Your task to perform on an android device: Is it going to rain this weekend? Image 0: 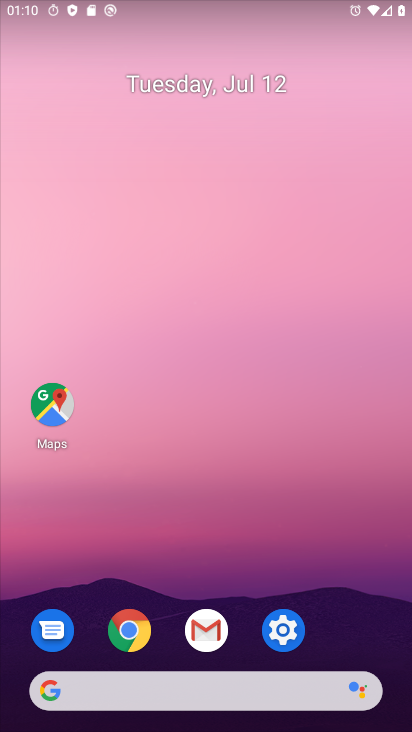
Step 0: click (211, 678)
Your task to perform on an android device: Is it going to rain this weekend? Image 1: 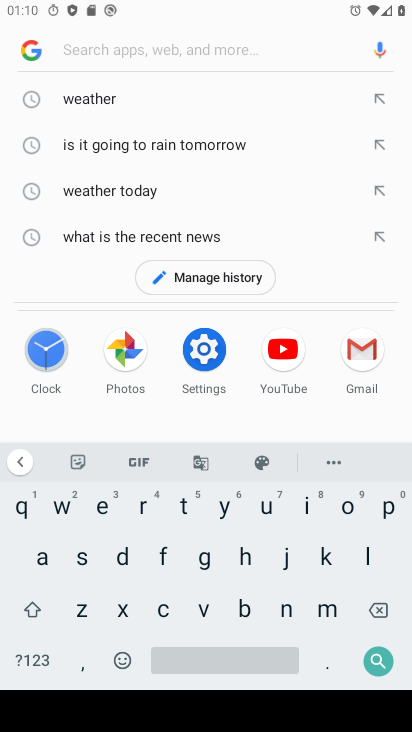
Step 1: click (137, 502)
Your task to perform on an android device: Is it going to rain this weekend? Image 2: 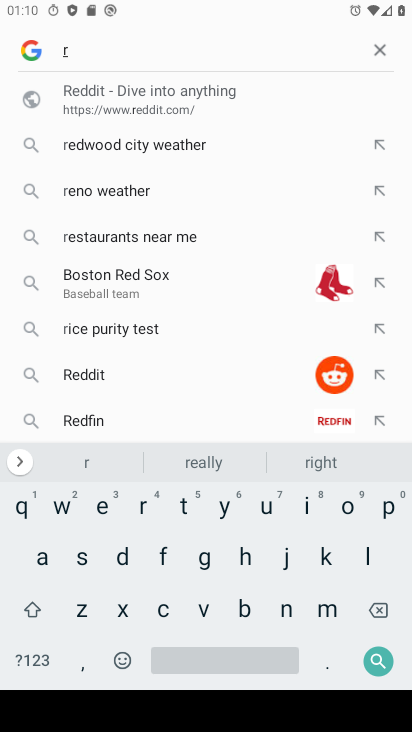
Step 2: click (50, 552)
Your task to perform on an android device: Is it going to rain this weekend? Image 3: 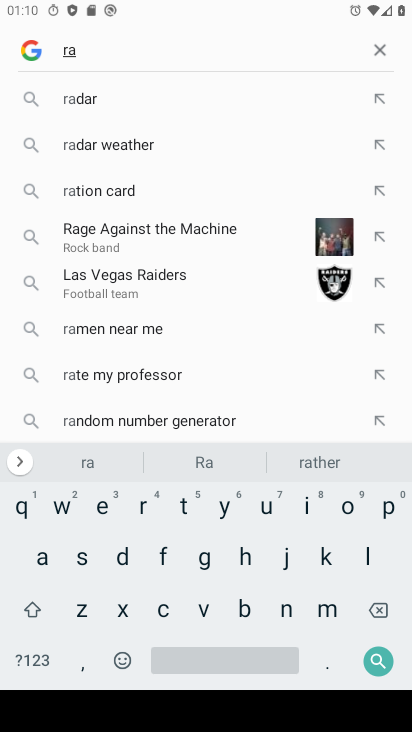
Step 3: click (307, 506)
Your task to perform on an android device: Is it going to rain this weekend? Image 4: 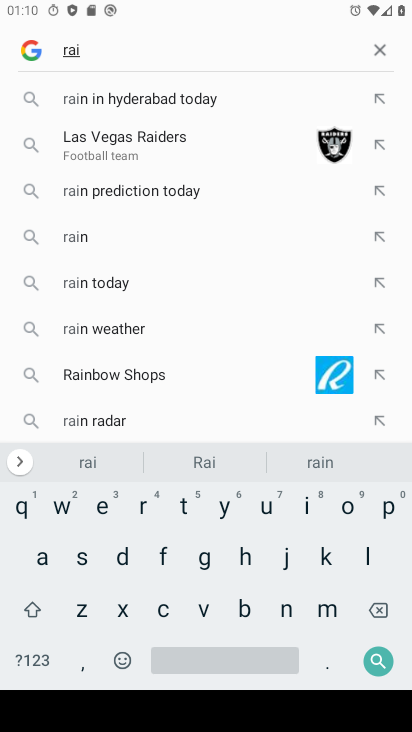
Step 4: click (286, 608)
Your task to perform on an android device: Is it going to rain this weekend? Image 5: 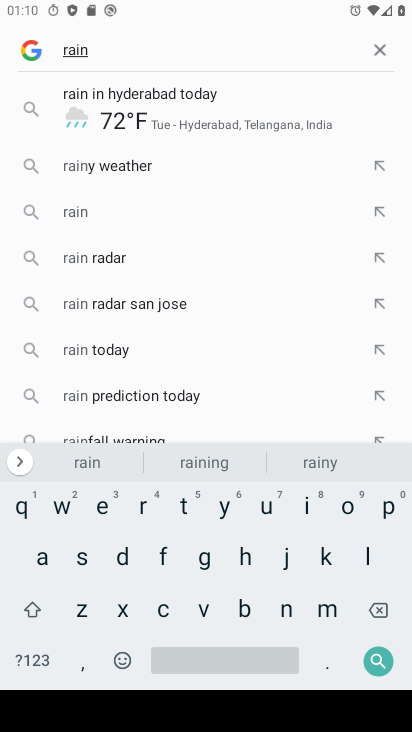
Step 5: click (377, 661)
Your task to perform on an android device: Is it going to rain this weekend? Image 6: 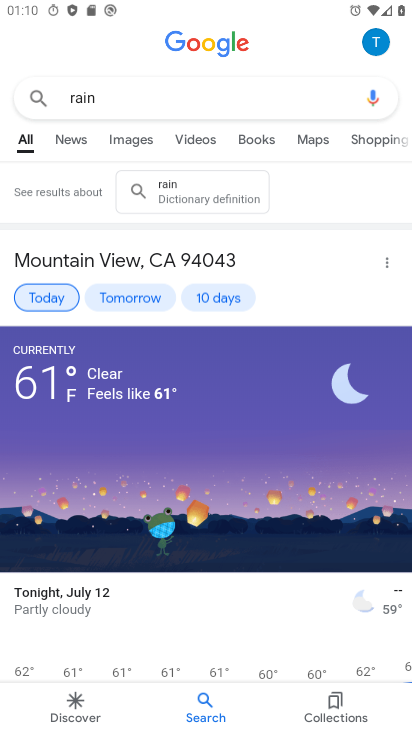
Step 6: click (209, 294)
Your task to perform on an android device: Is it going to rain this weekend? Image 7: 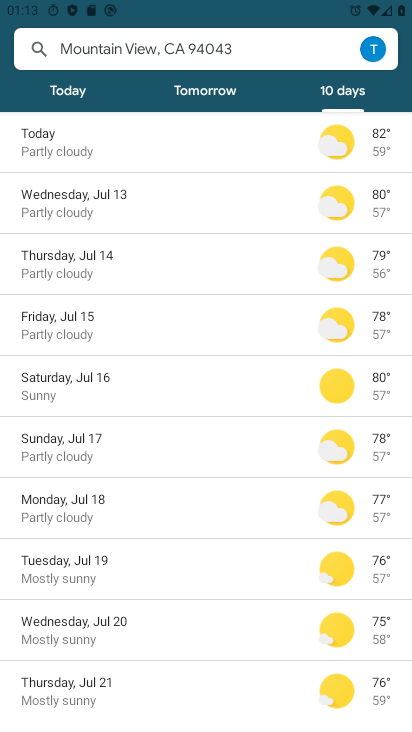
Step 7: task complete